Your task to perform on an android device: When is my next appointment? Image 0: 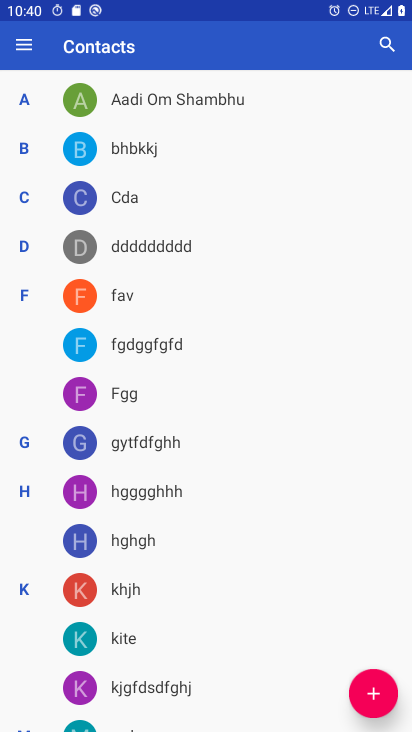
Step 0: press home button
Your task to perform on an android device: When is my next appointment? Image 1: 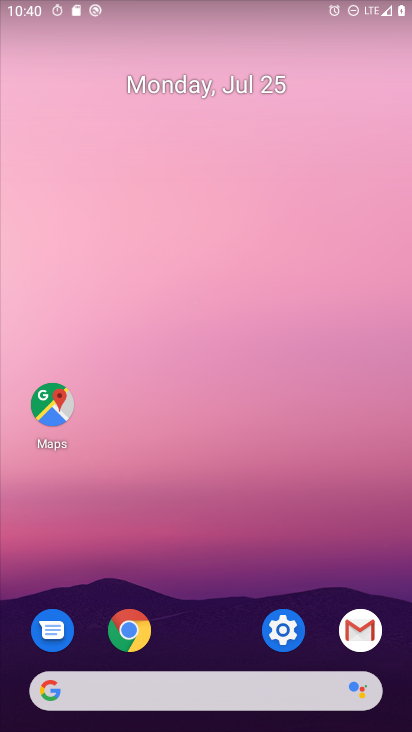
Step 1: drag from (256, 712) to (290, 218)
Your task to perform on an android device: When is my next appointment? Image 2: 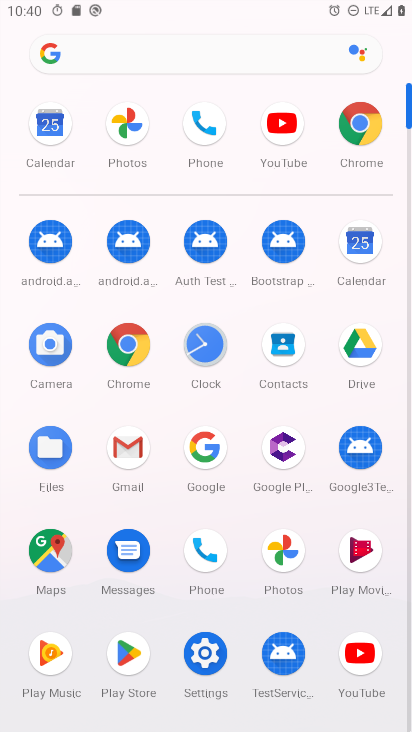
Step 2: click (369, 259)
Your task to perform on an android device: When is my next appointment? Image 3: 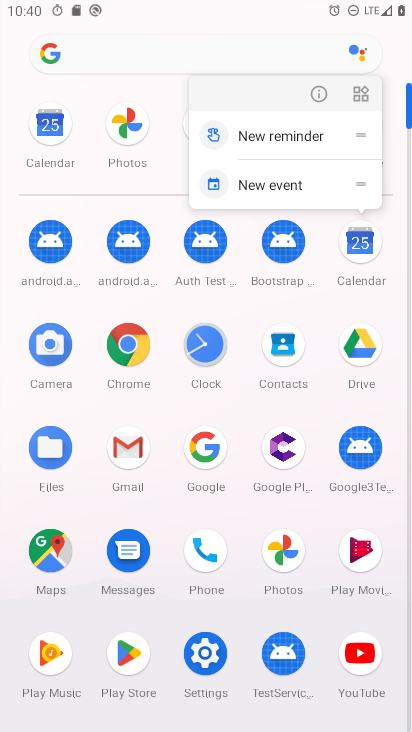
Step 3: click (369, 263)
Your task to perform on an android device: When is my next appointment? Image 4: 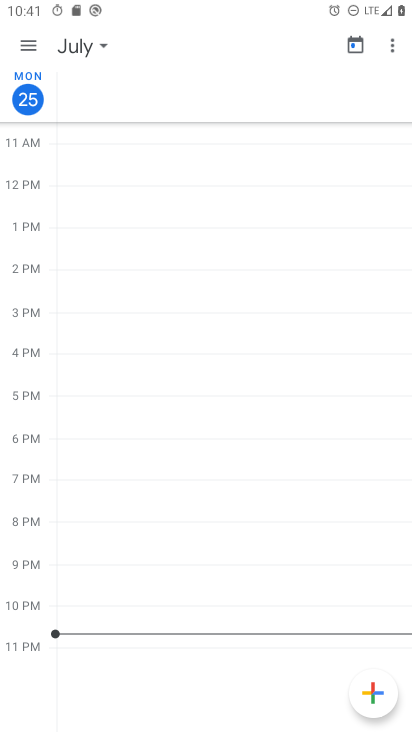
Step 4: task complete